Your task to perform on an android device: Go to Wikipedia Image 0: 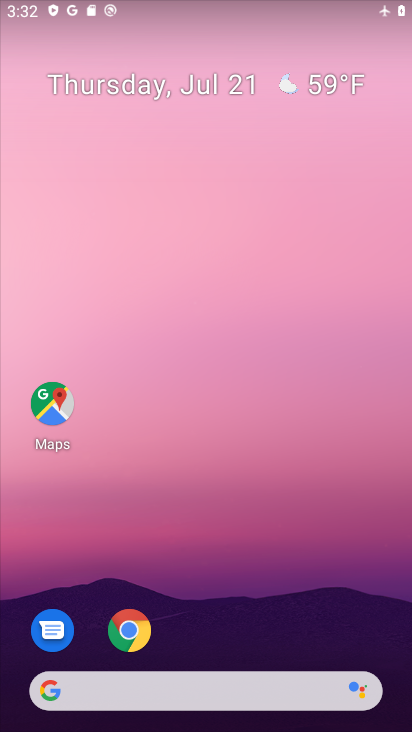
Step 0: drag from (237, 138) to (281, 410)
Your task to perform on an android device: Go to Wikipedia Image 1: 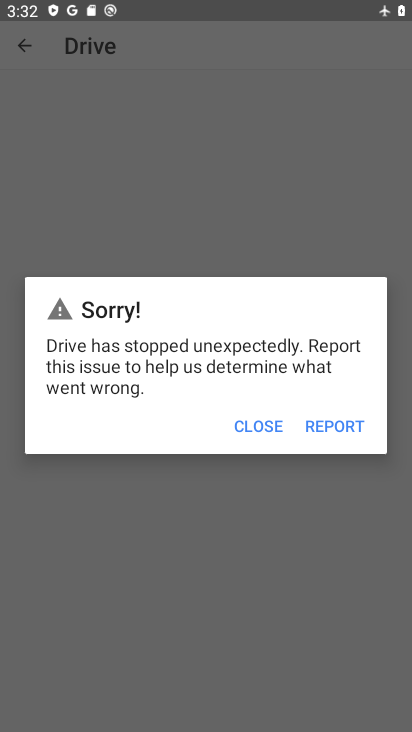
Step 1: drag from (288, 558) to (108, 15)
Your task to perform on an android device: Go to Wikipedia Image 2: 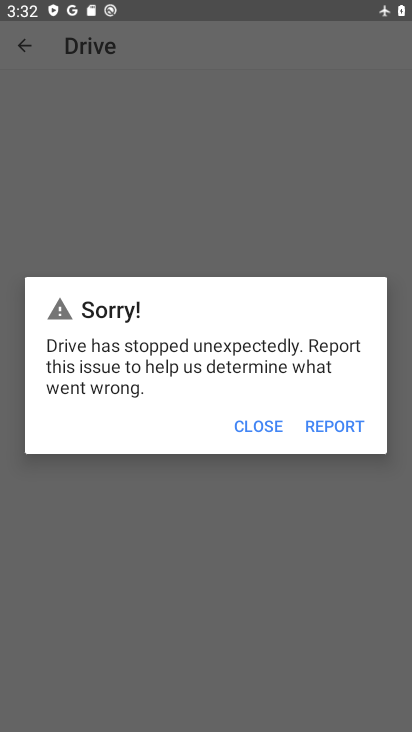
Step 2: click (262, 425)
Your task to perform on an android device: Go to Wikipedia Image 3: 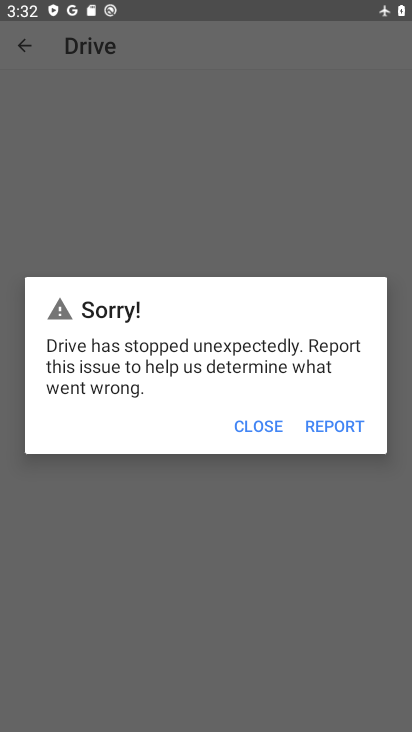
Step 3: click (262, 425)
Your task to perform on an android device: Go to Wikipedia Image 4: 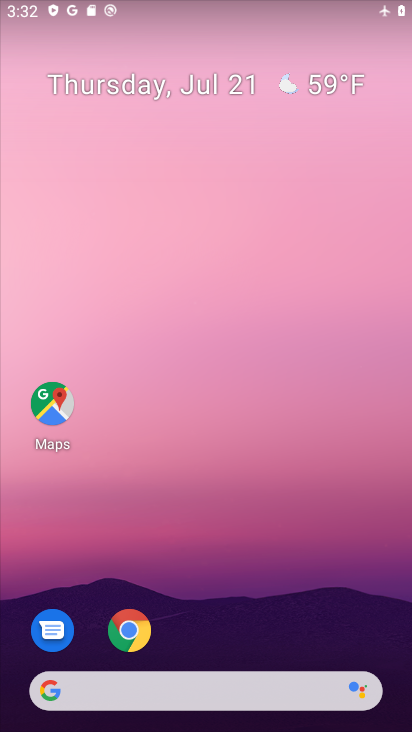
Step 4: click (164, 128)
Your task to perform on an android device: Go to Wikipedia Image 5: 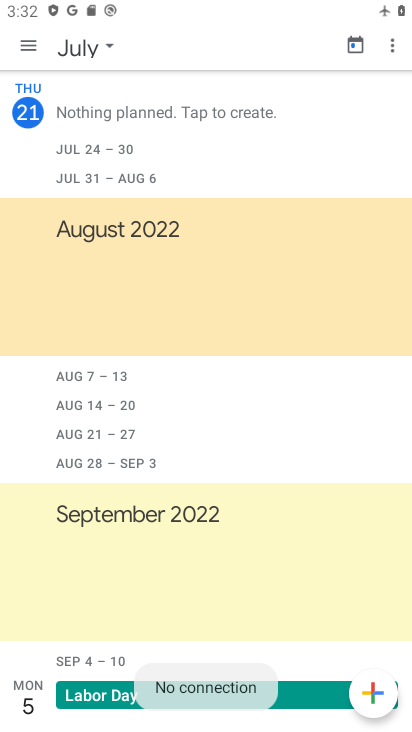
Step 5: press back button
Your task to perform on an android device: Go to Wikipedia Image 6: 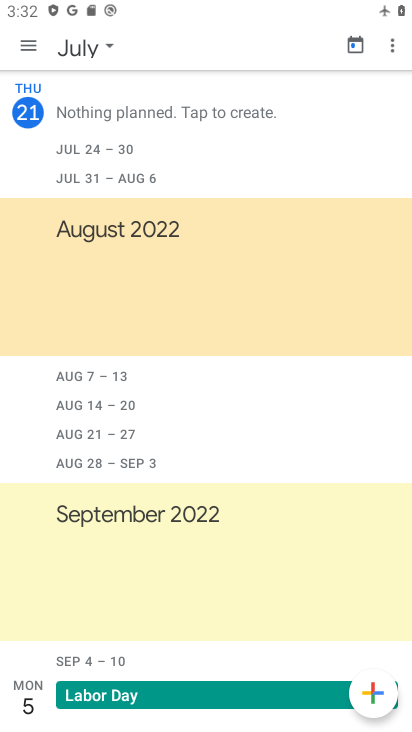
Step 6: press back button
Your task to perform on an android device: Go to Wikipedia Image 7: 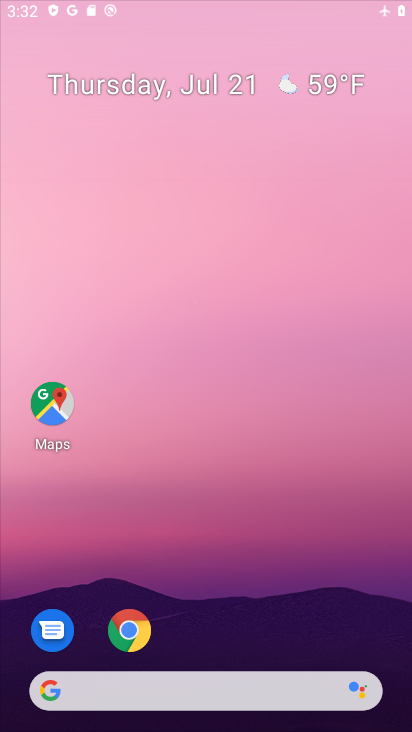
Step 7: press back button
Your task to perform on an android device: Go to Wikipedia Image 8: 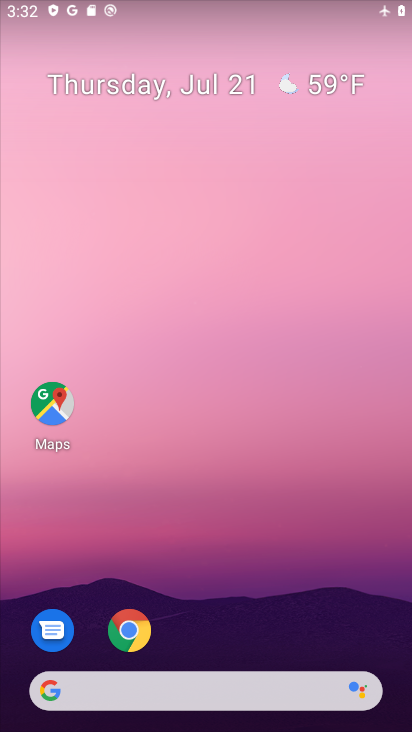
Step 8: drag from (198, 700) to (116, 79)
Your task to perform on an android device: Go to Wikipedia Image 9: 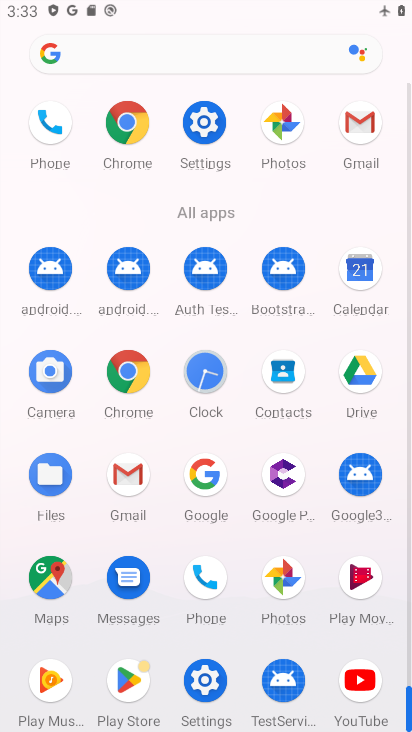
Step 9: click (193, 127)
Your task to perform on an android device: Go to Wikipedia Image 10: 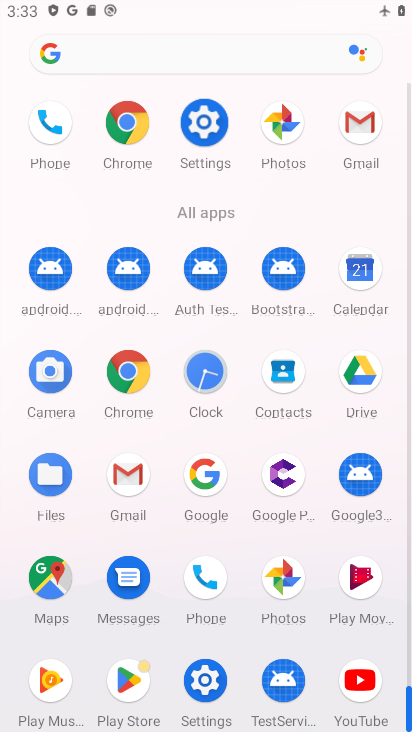
Step 10: click (194, 130)
Your task to perform on an android device: Go to Wikipedia Image 11: 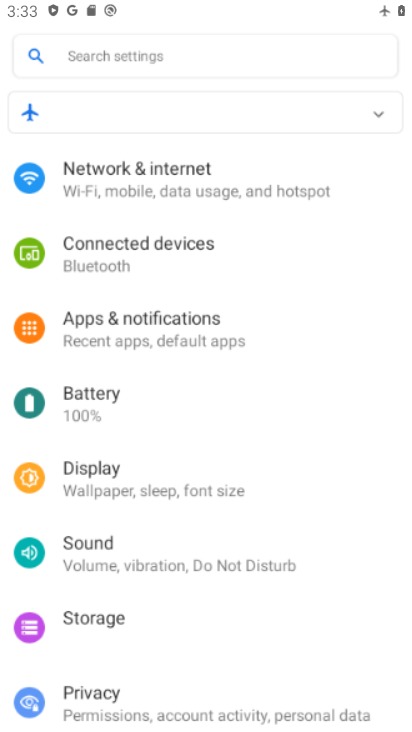
Step 11: click (194, 129)
Your task to perform on an android device: Go to Wikipedia Image 12: 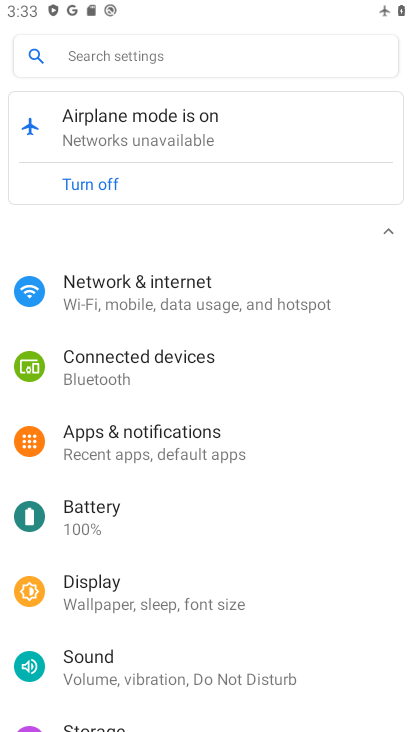
Step 12: click (151, 290)
Your task to perform on an android device: Go to Wikipedia Image 13: 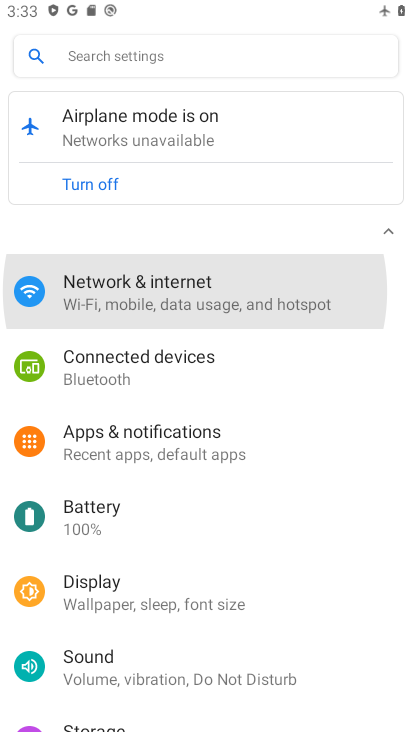
Step 13: click (151, 290)
Your task to perform on an android device: Go to Wikipedia Image 14: 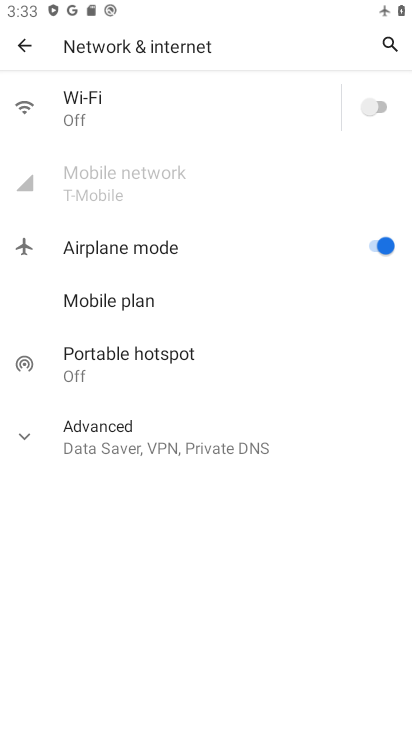
Step 14: click (370, 103)
Your task to perform on an android device: Go to Wikipedia Image 15: 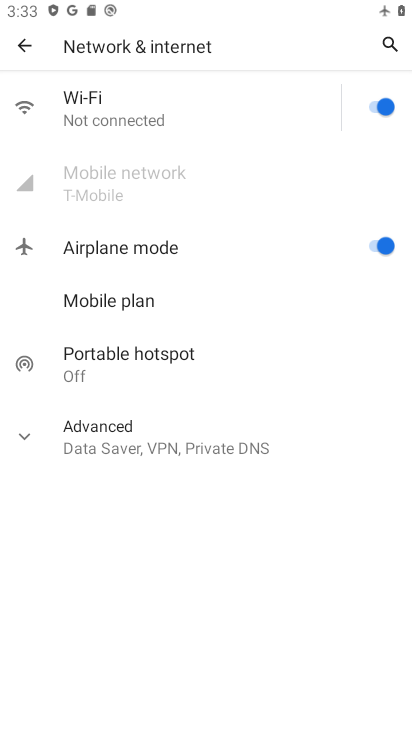
Step 15: click (385, 254)
Your task to perform on an android device: Go to Wikipedia Image 16: 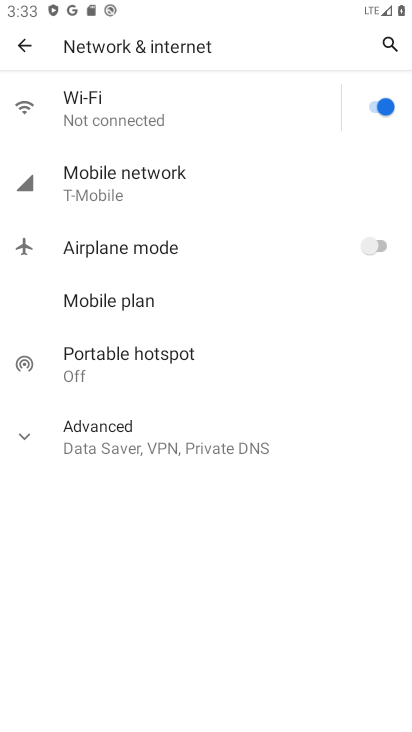
Step 16: click (29, 47)
Your task to perform on an android device: Go to Wikipedia Image 17: 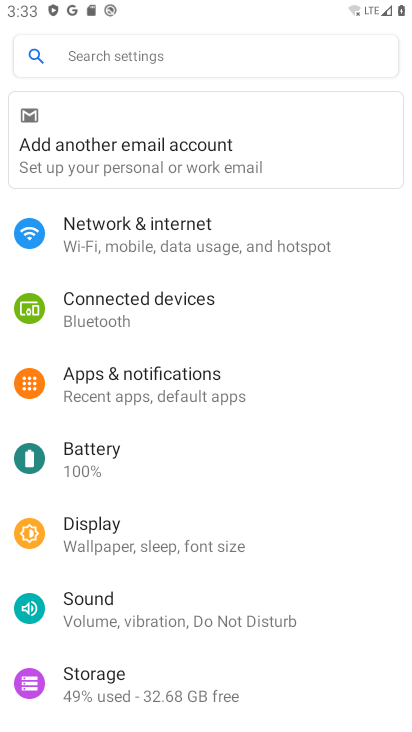
Step 17: press back button
Your task to perform on an android device: Go to Wikipedia Image 18: 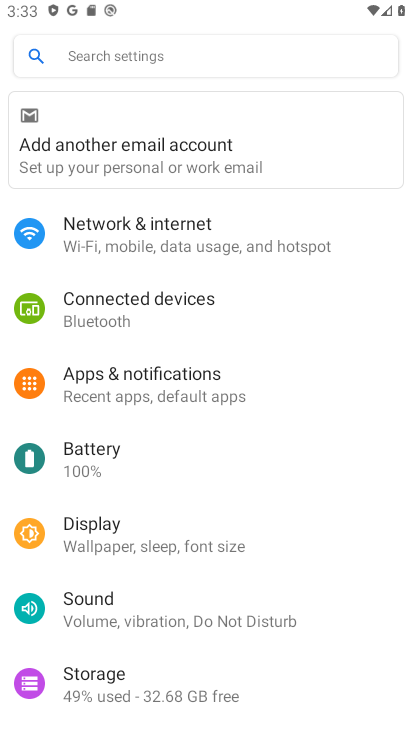
Step 18: press back button
Your task to perform on an android device: Go to Wikipedia Image 19: 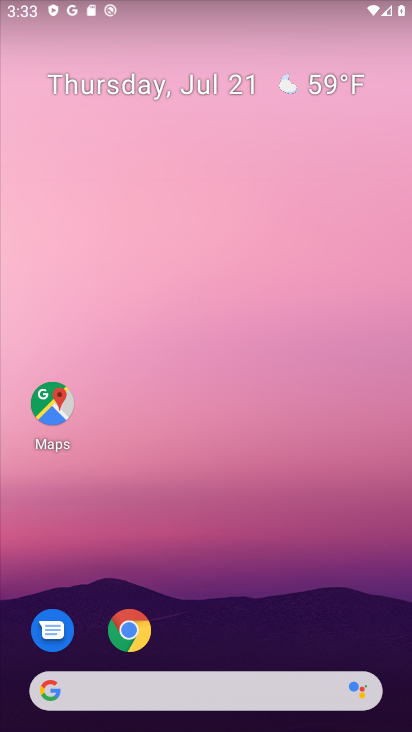
Step 19: drag from (267, 658) to (231, 282)
Your task to perform on an android device: Go to Wikipedia Image 20: 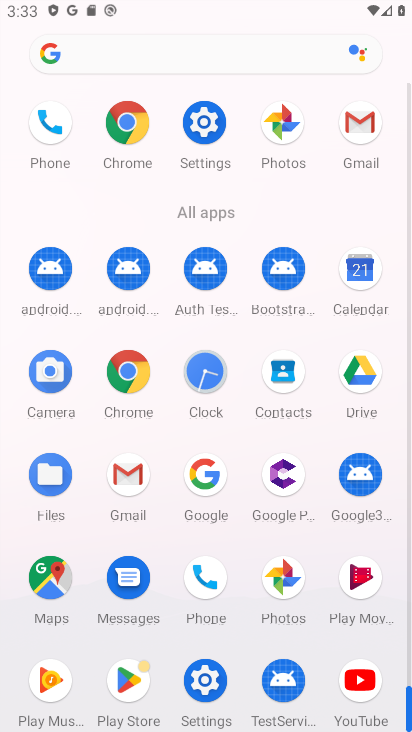
Step 20: click (142, 136)
Your task to perform on an android device: Go to Wikipedia Image 21: 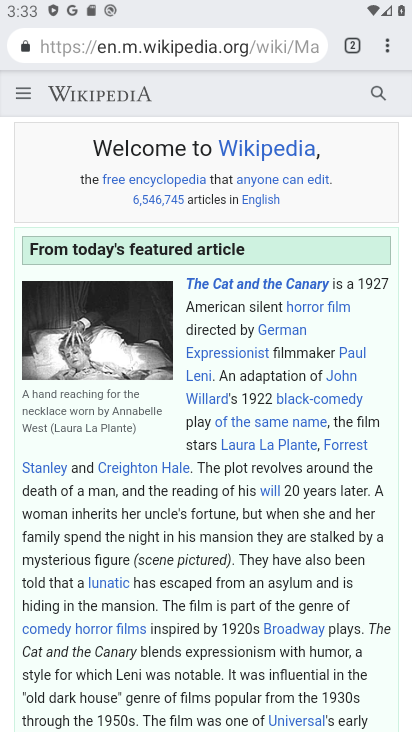
Step 21: click (381, 44)
Your task to perform on an android device: Go to Wikipedia Image 22: 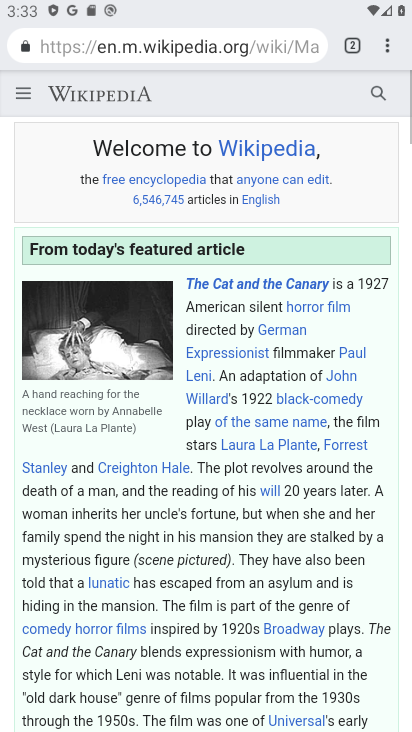
Step 22: task complete